Your task to perform on an android device: see tabs open on other devices in the chrome app Image 0: 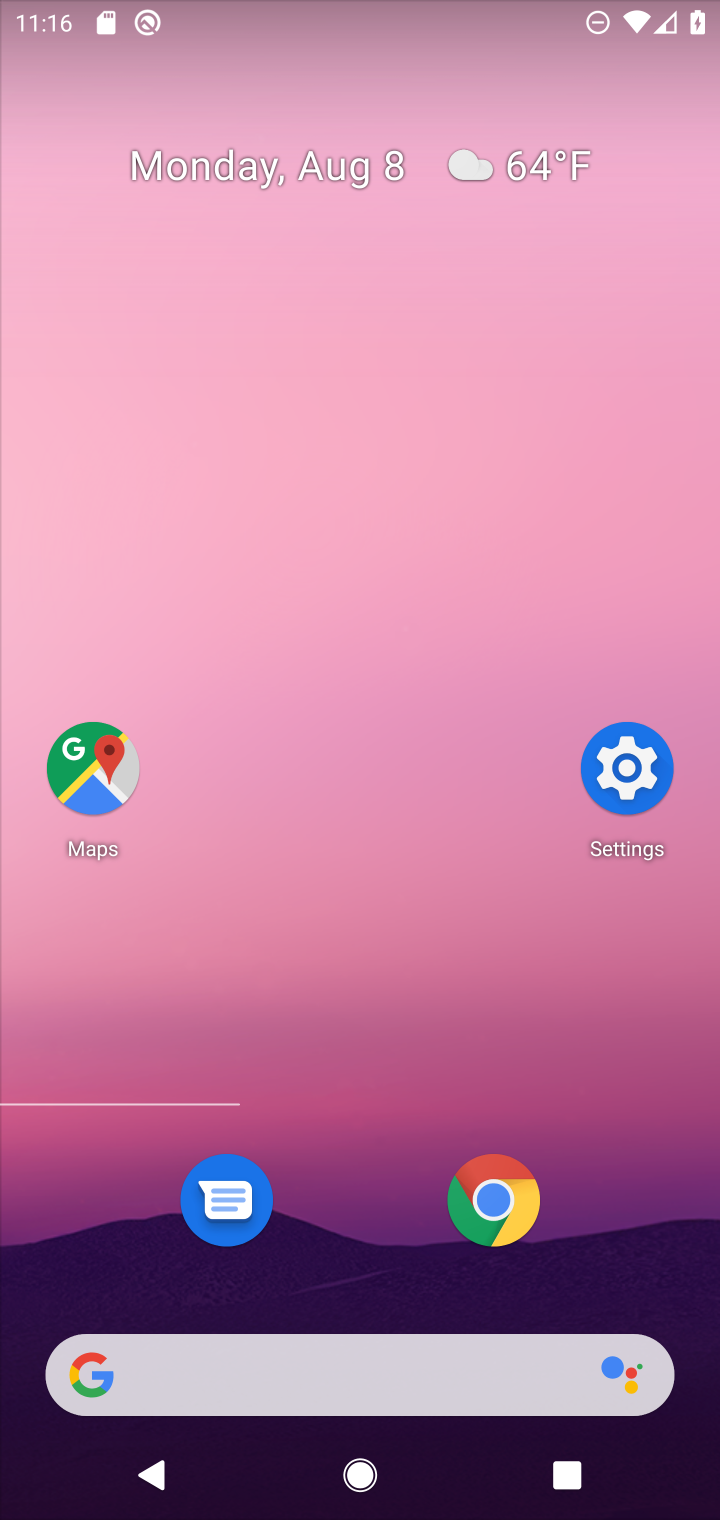
Step 0: press home button
Your task to perform on an android device: see tabs open on other devices in the chrome app Image 1: 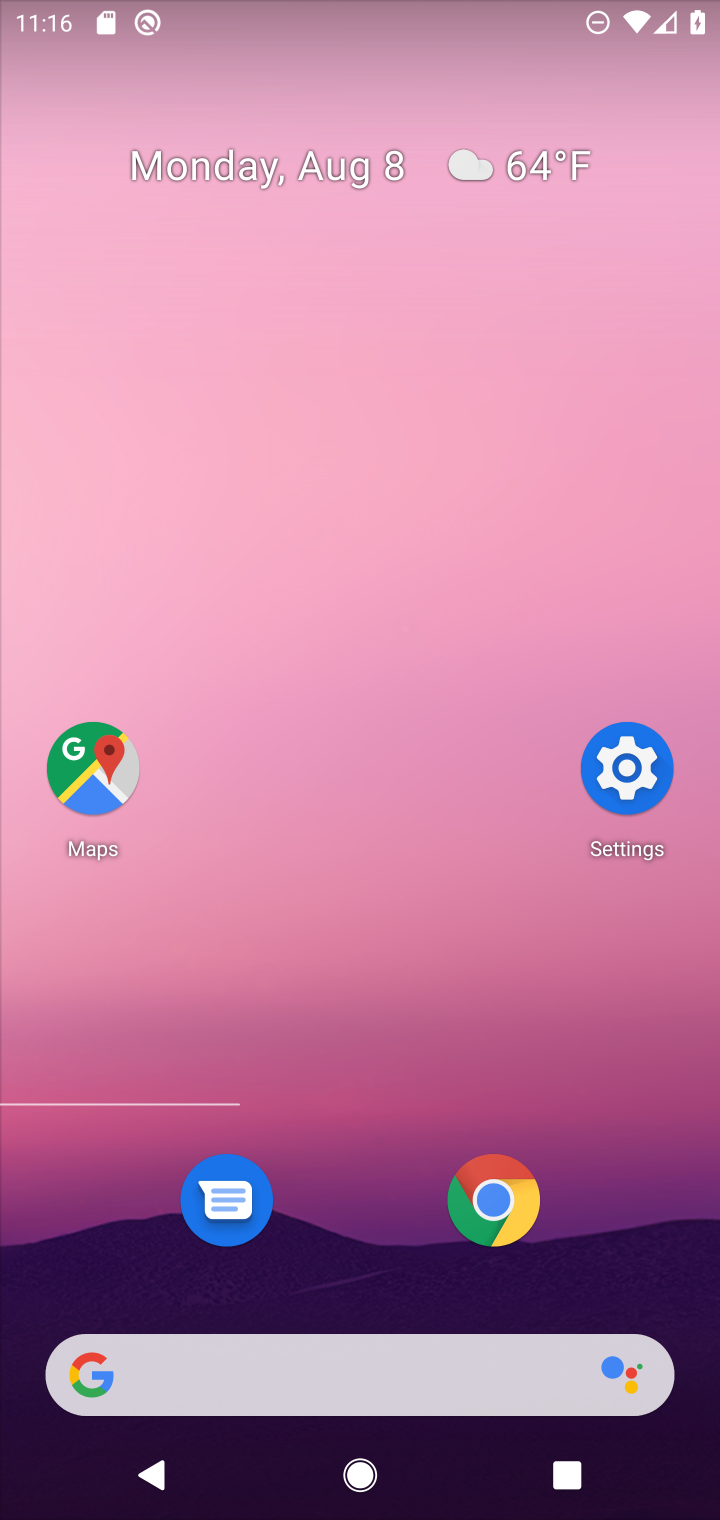
Step 1: click (487, 1207)
Your task to perform on an android device: see tabs open on other devices in the chrome app Image 2: 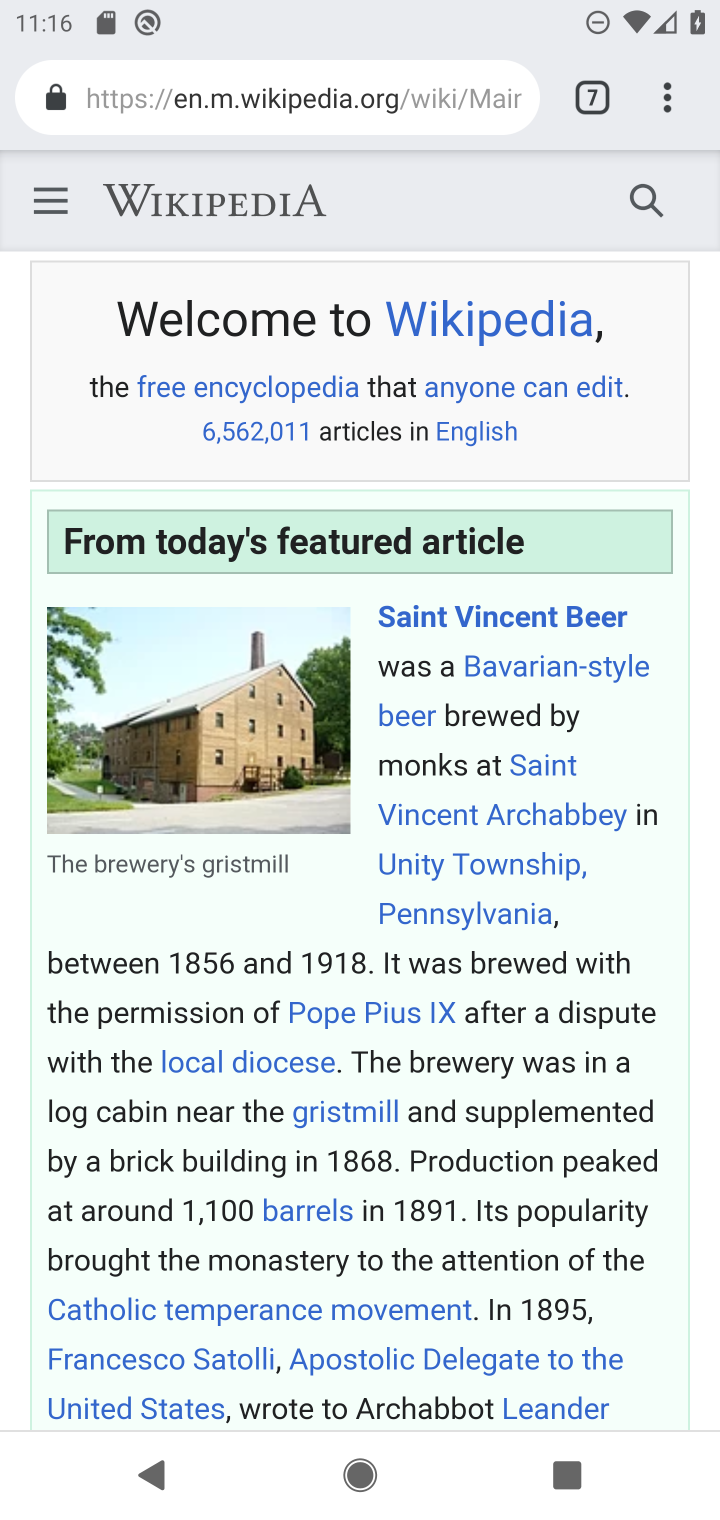
Step 2: task complete